Your task to perform on an android device: Open location settings Image 0: 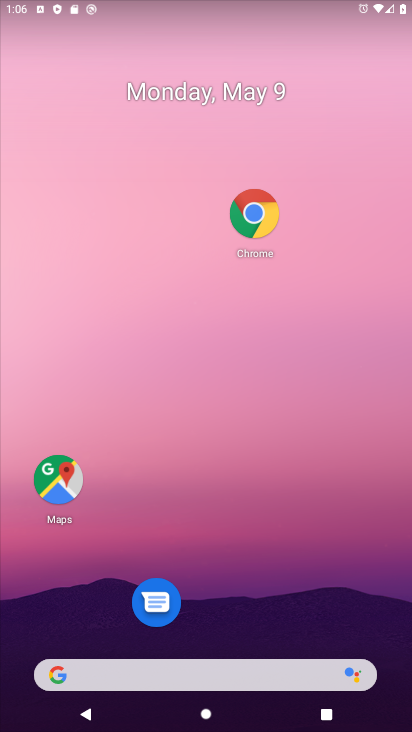
Step 0: drag from (250, 616) to (211, 70)
Your task to perform on an android device: Open location settings Image 1: 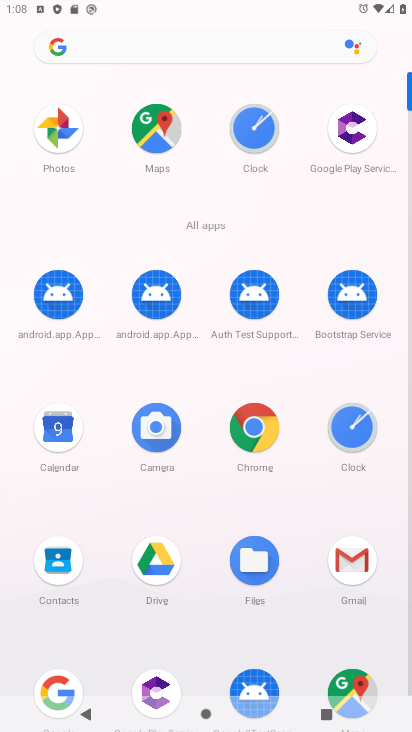
Step 1: click (409, 692)
Your task to perform on an android device: Open location settings Image 2: 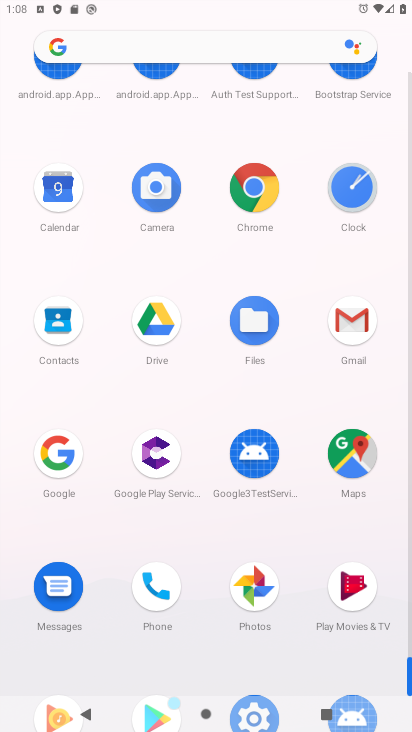
Step 2: drag from (410, 677) to (403, 726)
Your task to perform on an android device: Open location settings Image 3: 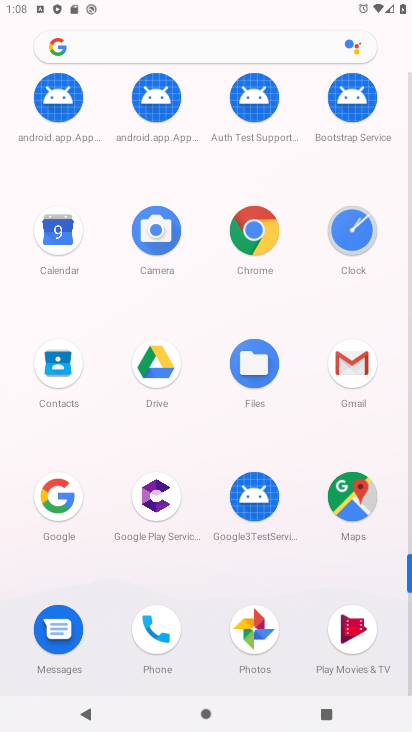
Step 3: drag from (410, 558) to (354, 697)
Your task to perform on an android device: Open location settings Image 4: 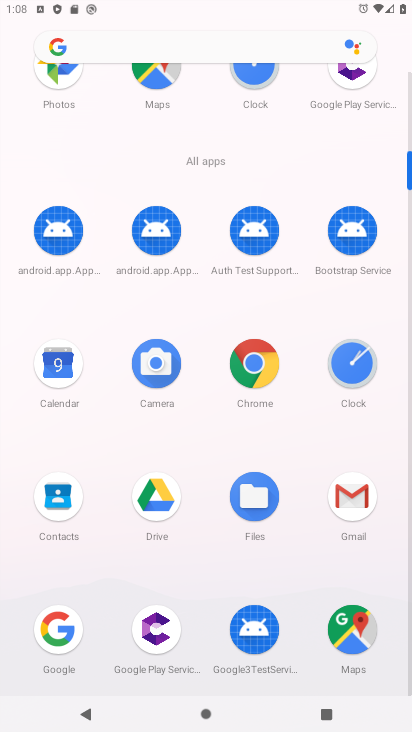
Step 4: drag from (244, 322) to (239, 683)
Your task to perform on an android device: Open location settings Image 5: 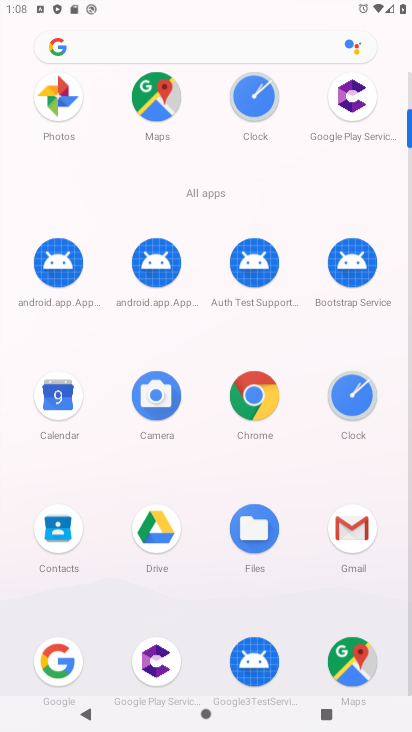
Step 5: drag from (229, 624) to (251, 44)
Your task to perform on an android device: Open location settings Image 6: 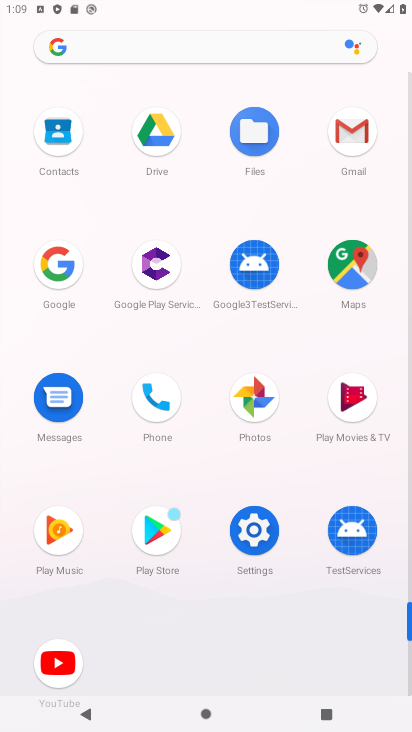
Step 6: click (266, 534)
Your task to perform on an android device: Open location settings Image 7: 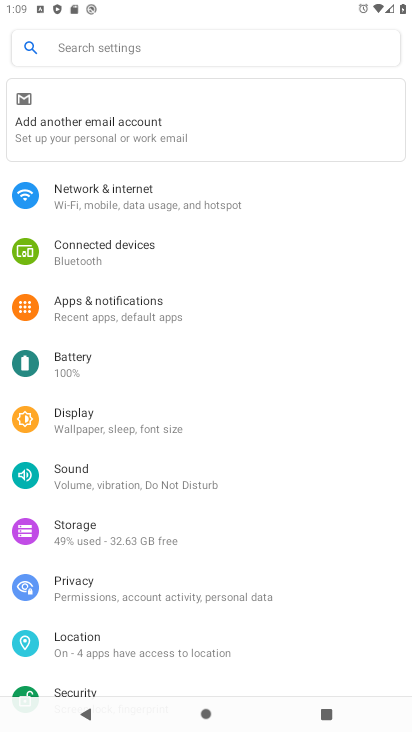
Step 7: click (122, 653)
Your task to perform on an android device: Open location settings Image 8: 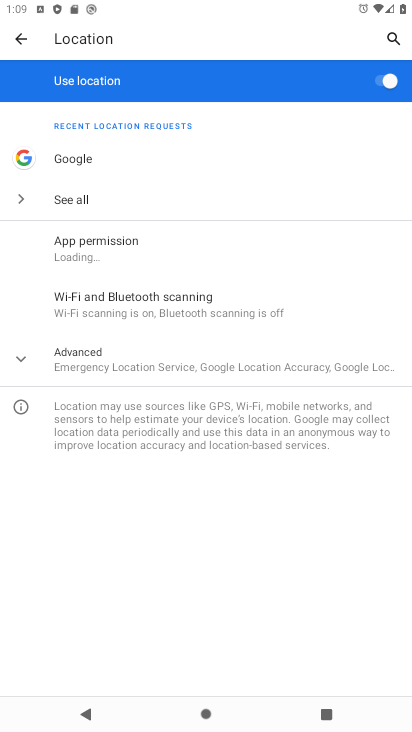
Step 8: task complete